Your task to perform on an android device: open app "Messenger Lite" (install if not already installed) Image 0: 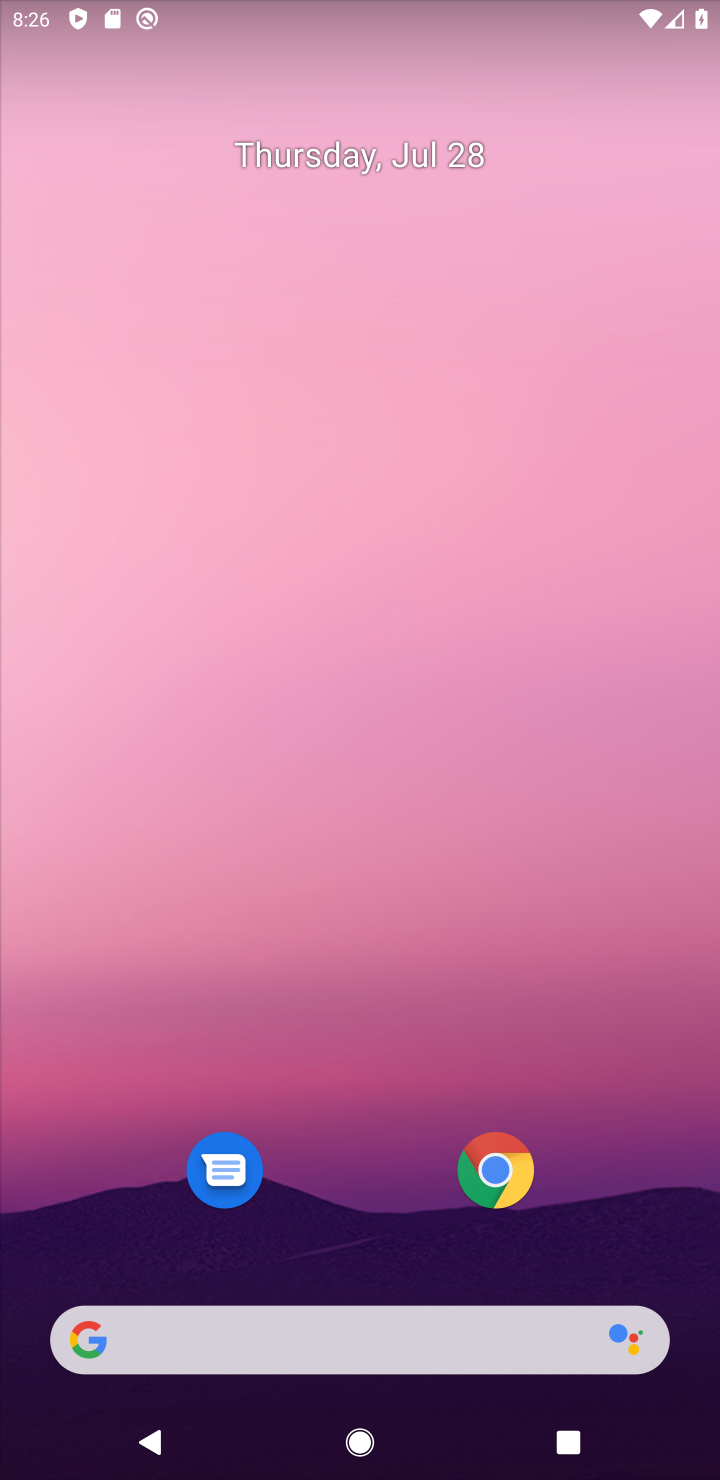
Step 0: drag from (390, 1145) to (353, 225)
Your task to perform on an android device: open app "Messenger Lite" (install if not already installed) Image 1: 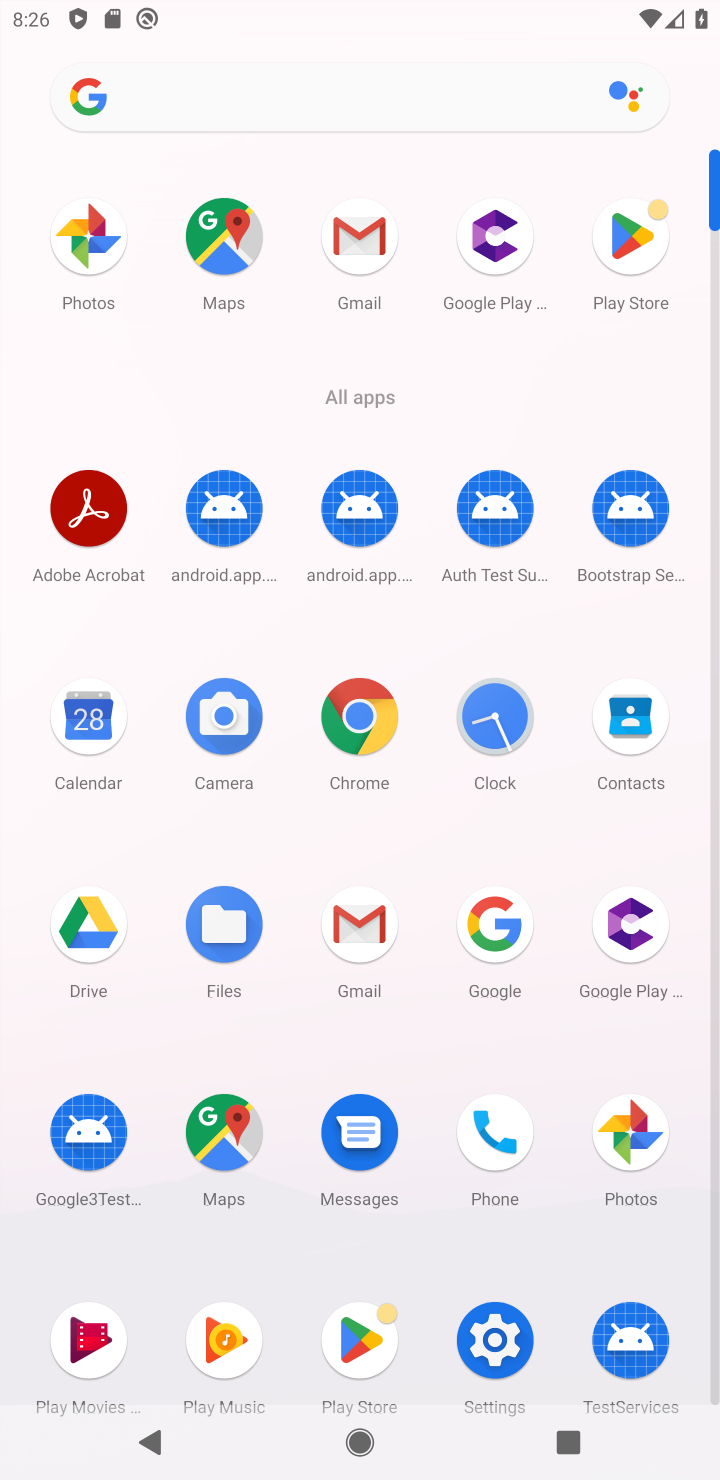
Step 1: drag from (365, 1264) to (398, 397)
Your task to perform on an android device: open app "Messenger Lite" (install if not already installed) Image 2: 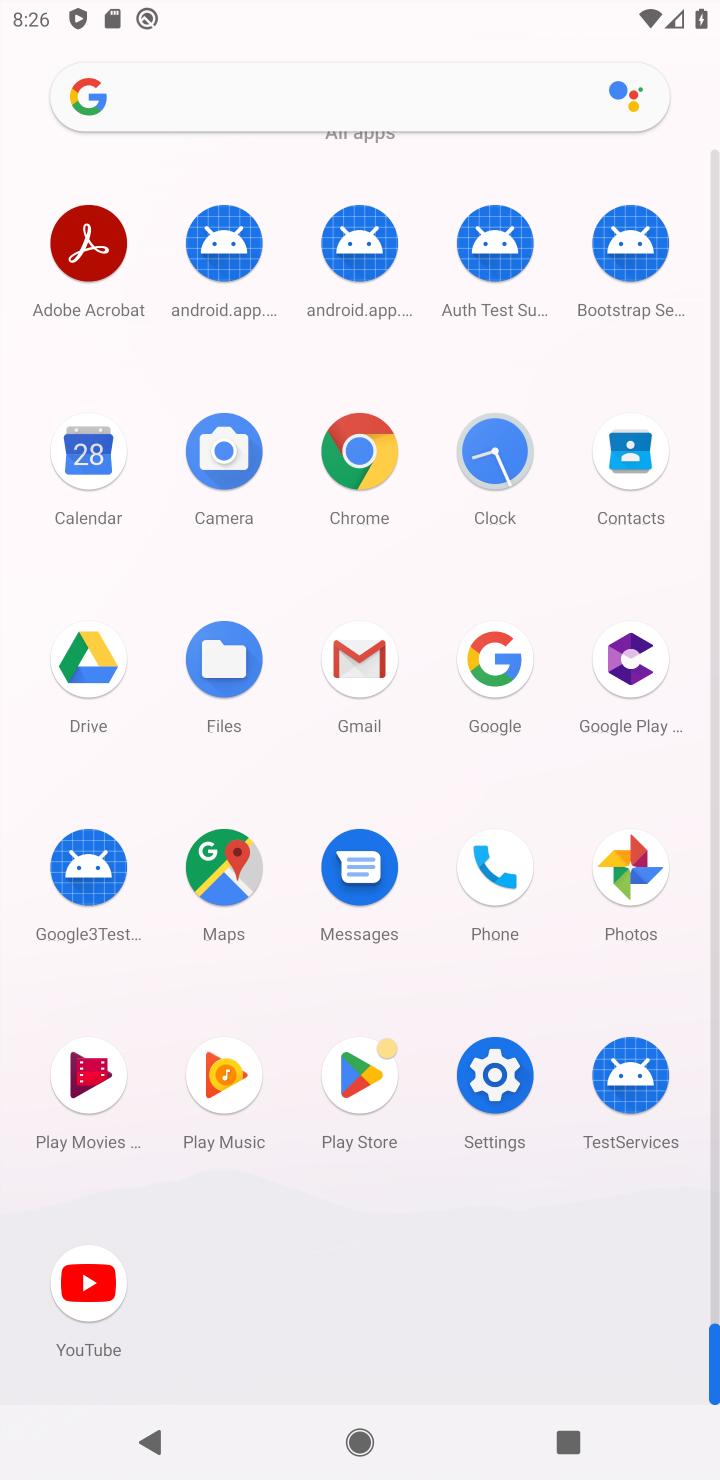
Step 2: click (355, 1090)
Your task to perform on an android device: open app "Messenger Lite" (install if not already installed) Image 3: 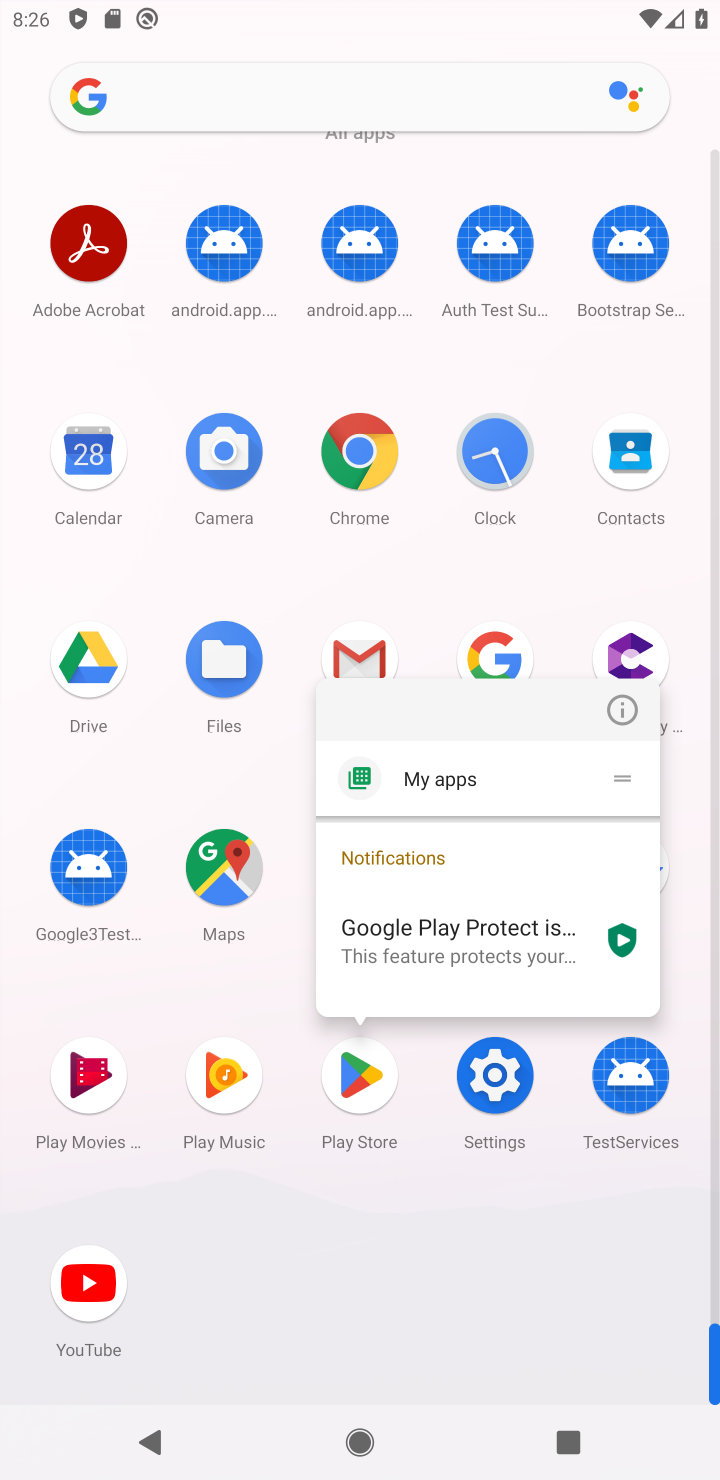
Step 3: click (355, 1090)
Your task to perform on an android device: open app "Messenger Lite" (install if not already installed) Image 4: 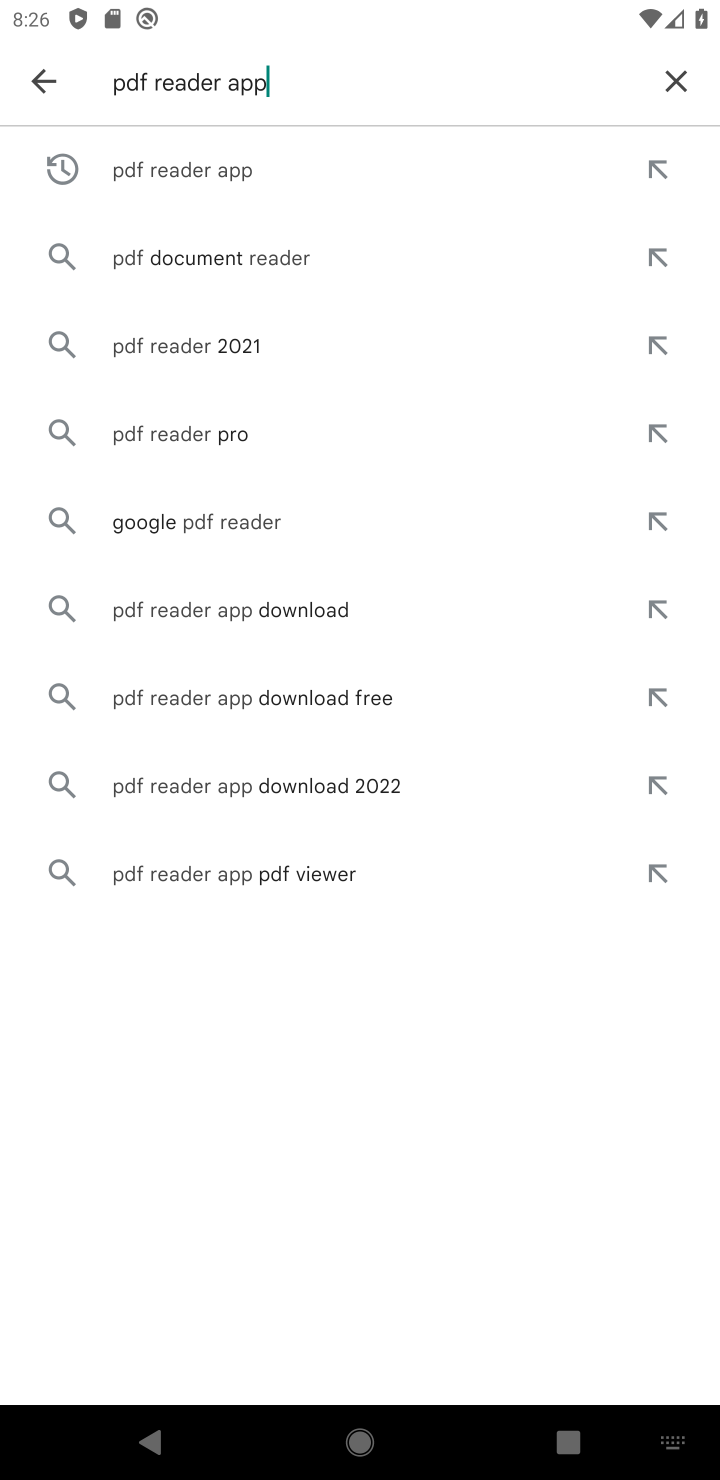
Step 4: click (687, 78)
Your task to perform on an android device: open app "Messenger Lite" (install if not already installed) Image 5: 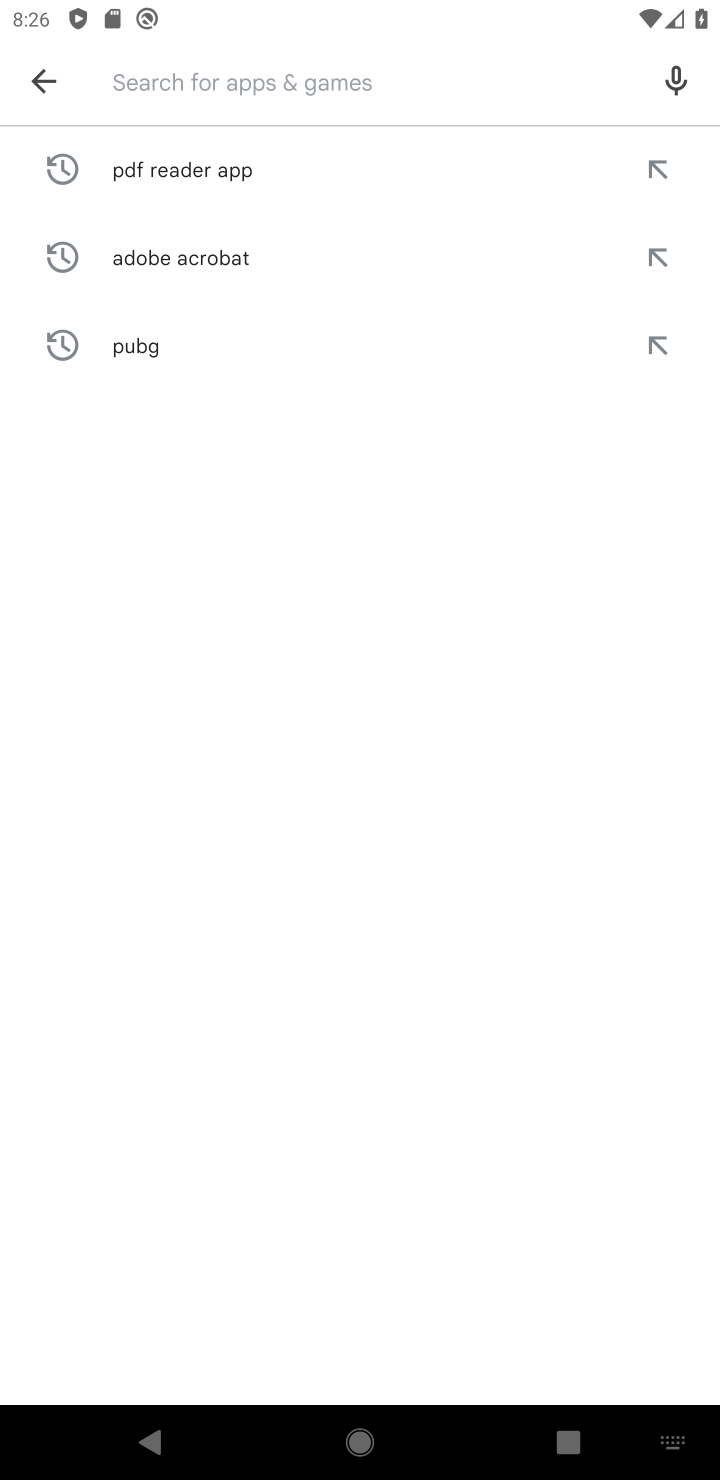
Step 5: type "messenger lite"
Your task to perform on an android device: open app "Messenger Lite" (install if not already installed) Image 6: 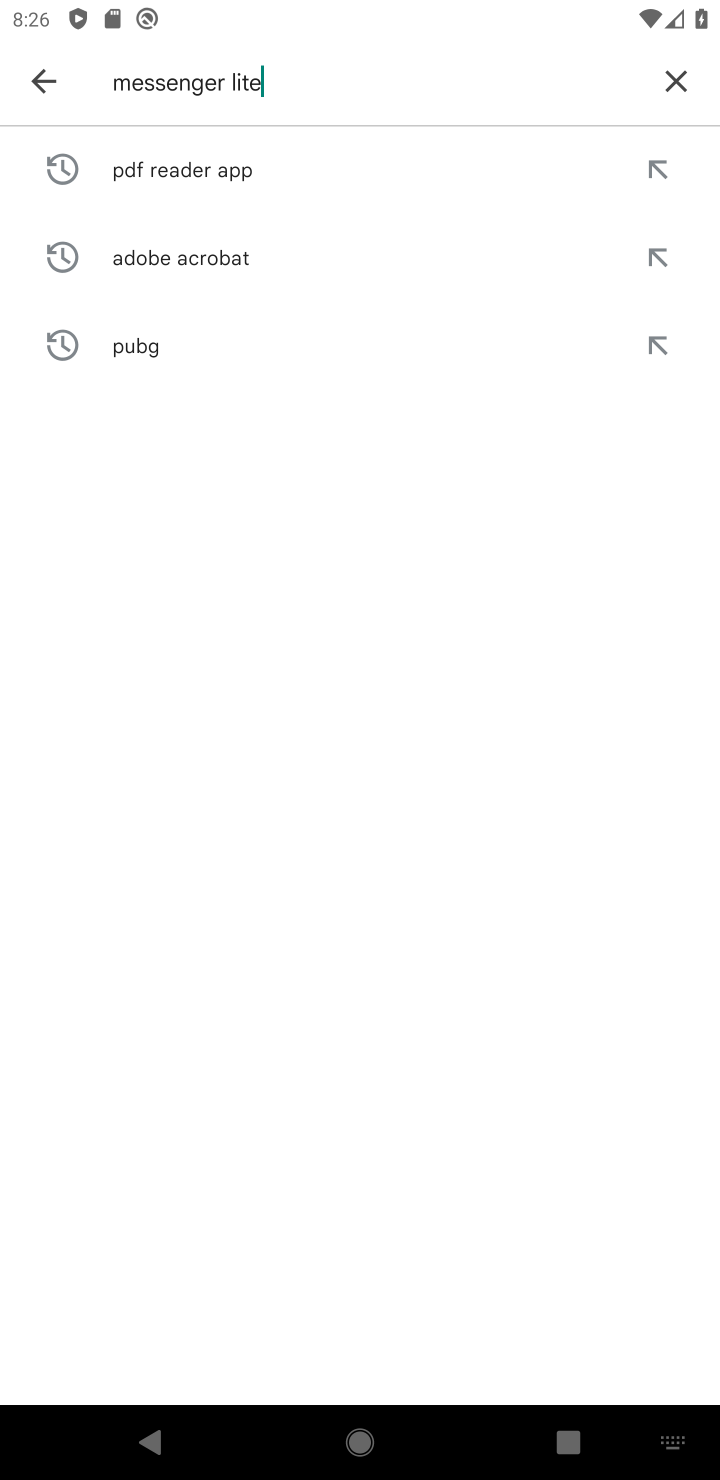
Step 6: type ""
Your task to perform on an android device: open app "Messenger Lite" (install if not already installed) Image 7: 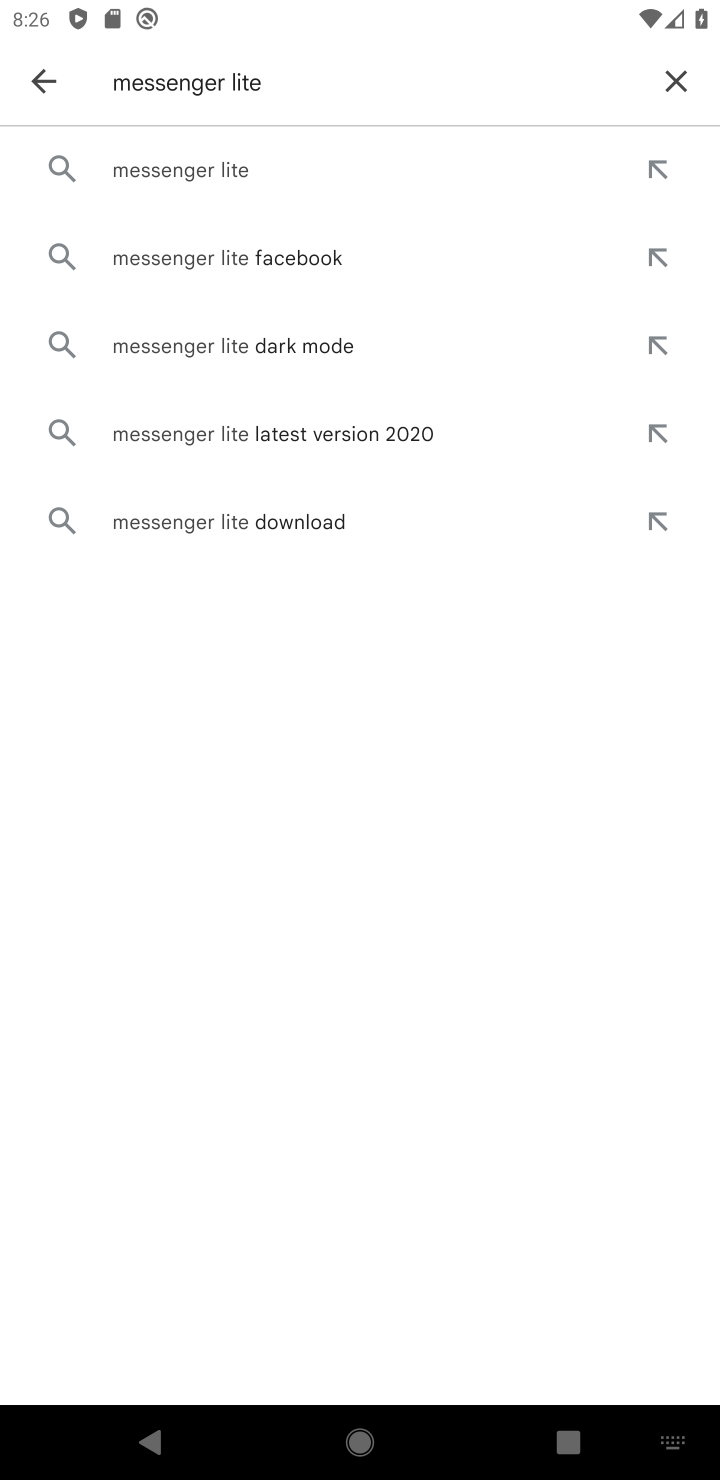
Step 7: click (470, 160)
Your task to perform on an android device: open app "Messenger Lite" (install if not already installed) Image 8: 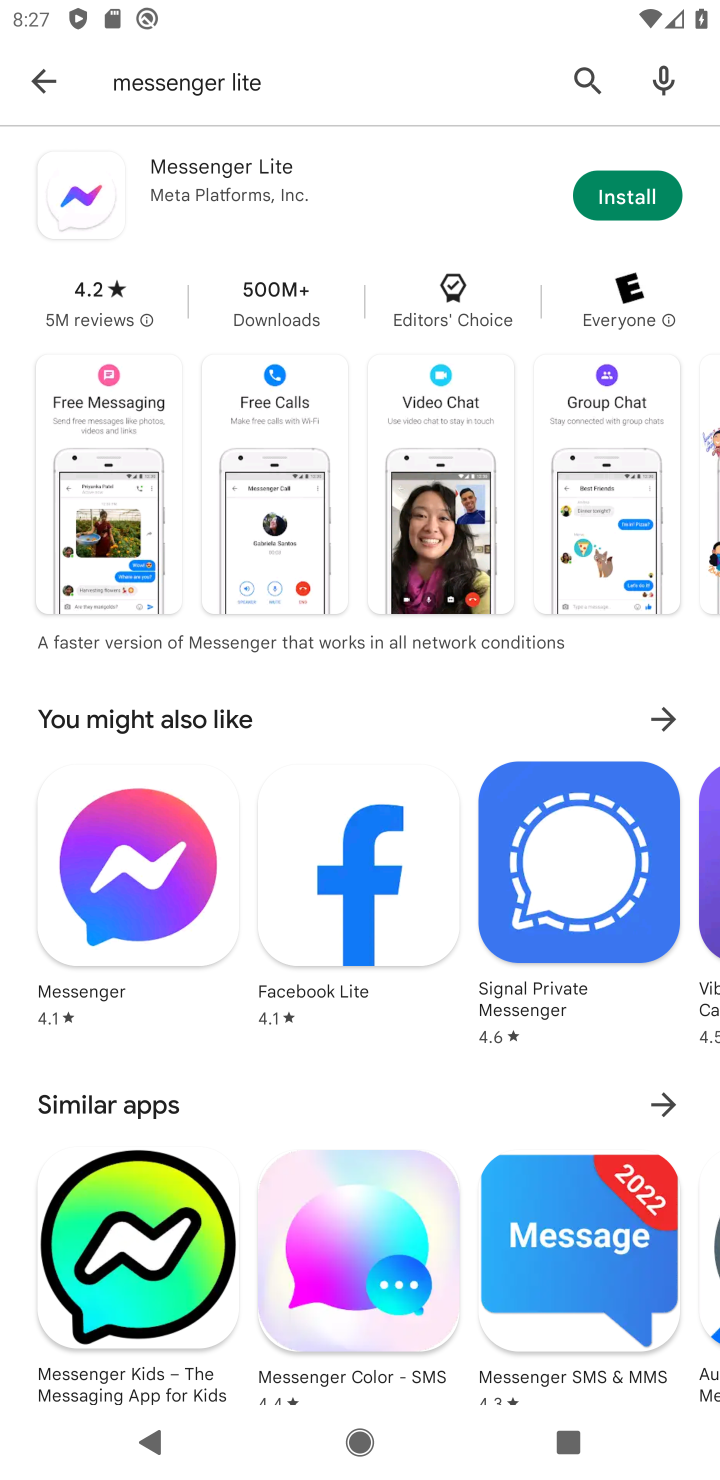
Step 8: click (613, 209)
Your task to perform on an android device: open app "Messenger Lite" (install if not already installed) Image 9: 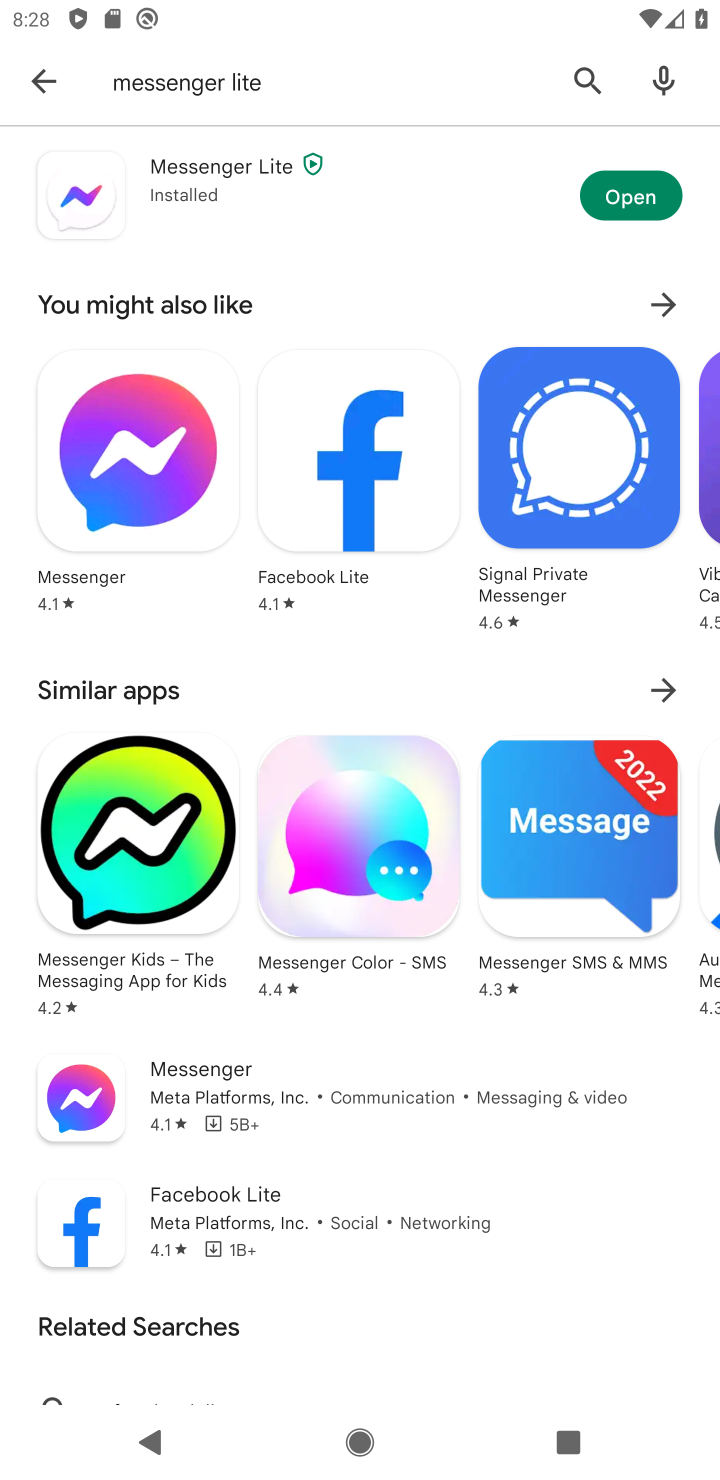
Step 9: click (611, 204)
Your task to perform on an android device: open app "Messenger Lite" (install if not already installed) Image 10: 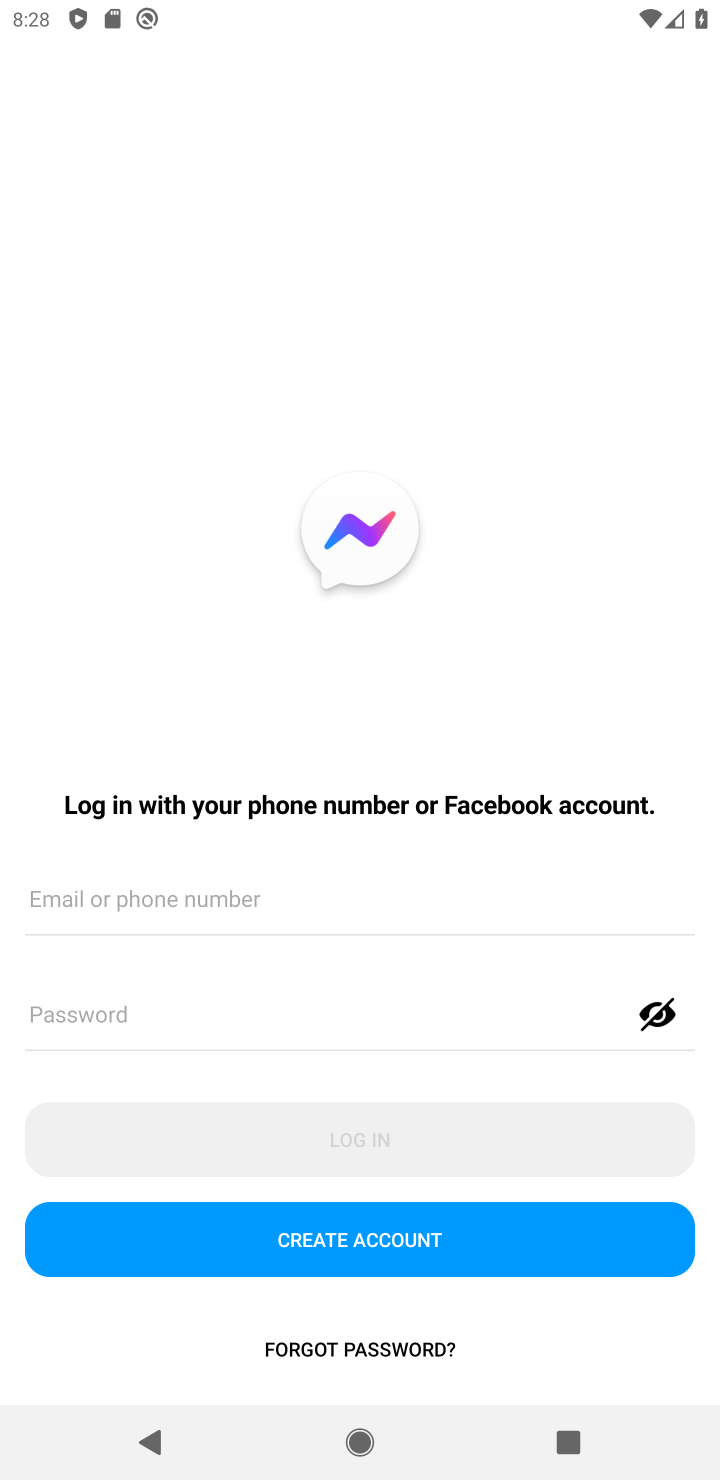
Step 10: task complete